Your task to perform on an android device: uninstall "Walmart Shopping & Grocery" Image 0: 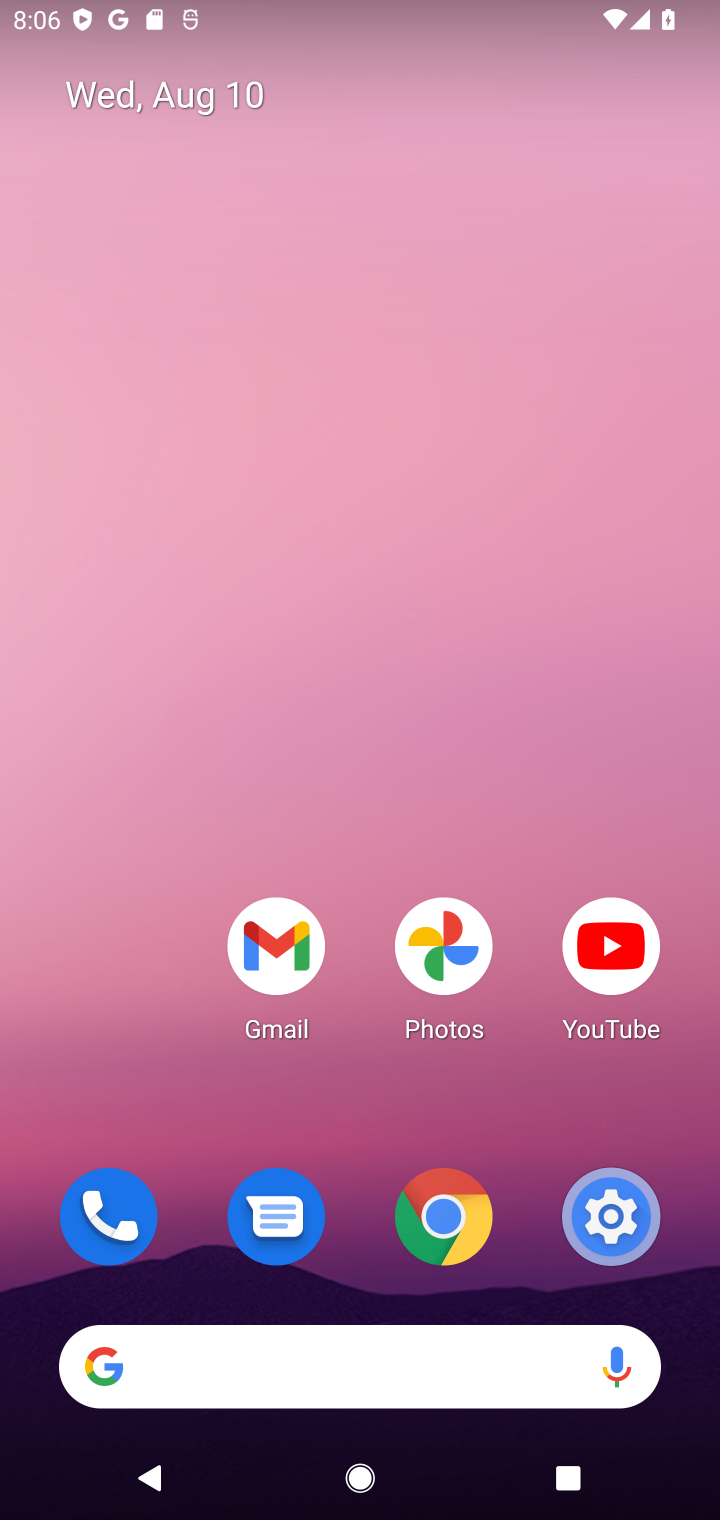
Step 0: drag from (351, 1355) to (593, 449)
Your task to perform on an android device: uninstall "Walmart Shopping & Grocery" Image 1: 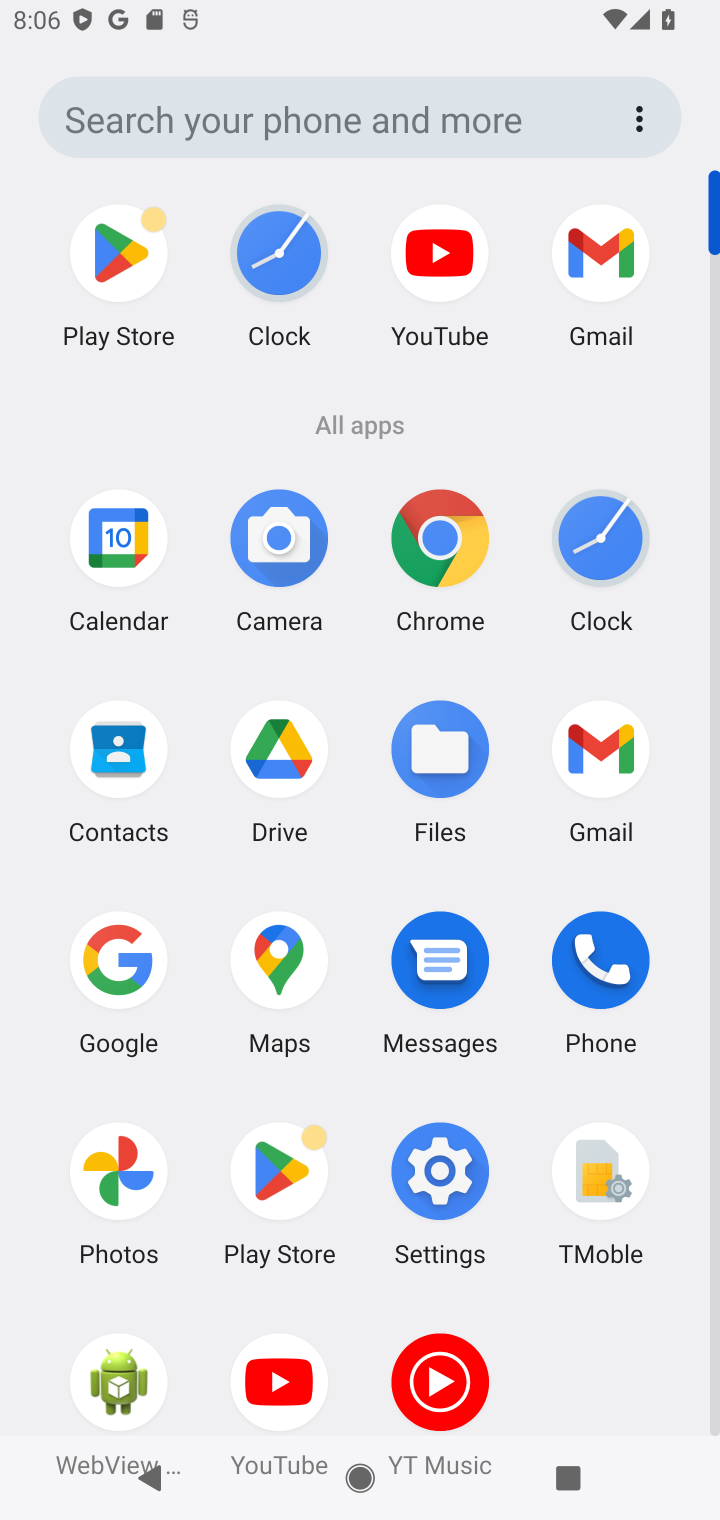
Step 1: drag from (282, 1172) to (374, 636)
Your task to perform on an android device: uninstall "Walmart Shopping & Grocery" Image 2: 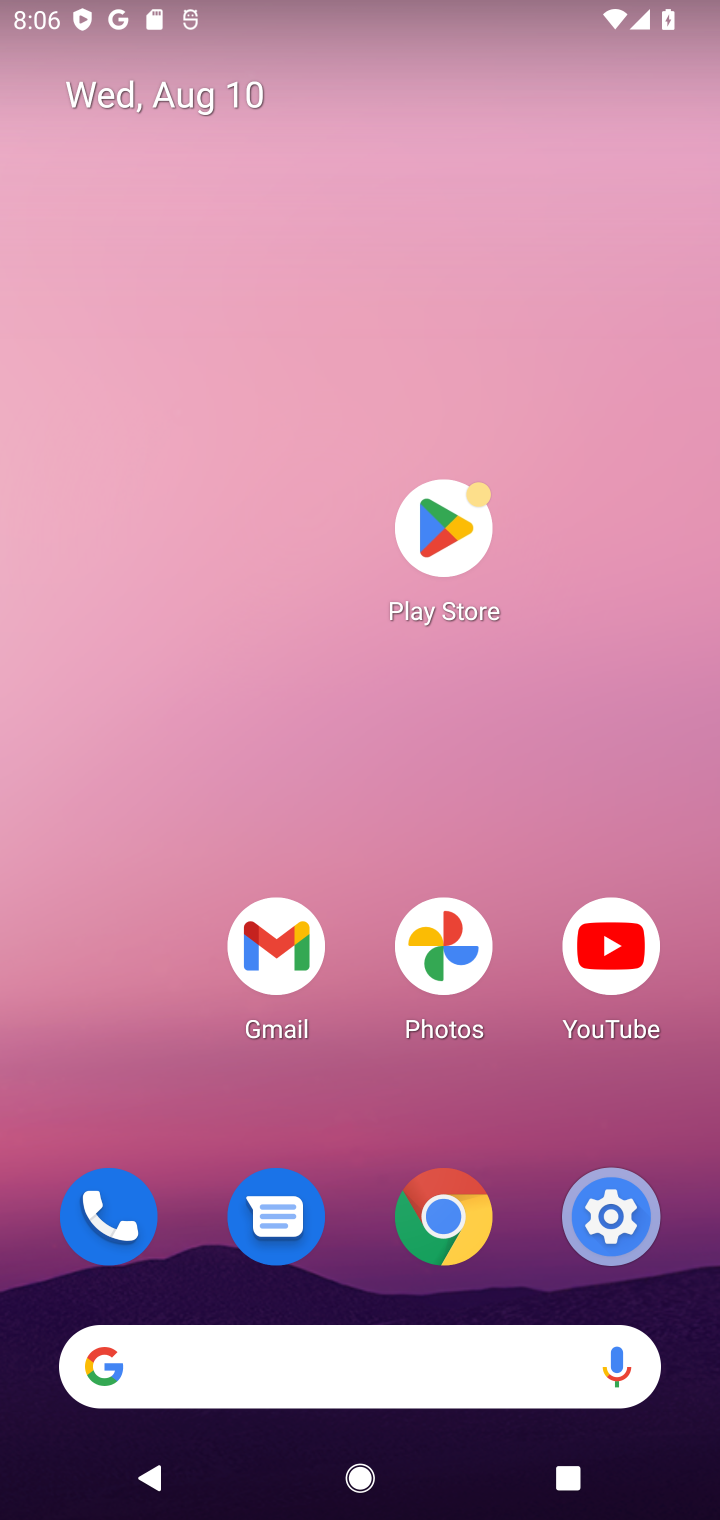
Step 2: click (429, 539)
Your task to perform on an android device: uninstall "Walmart Shopping & Grocery" Image 3: 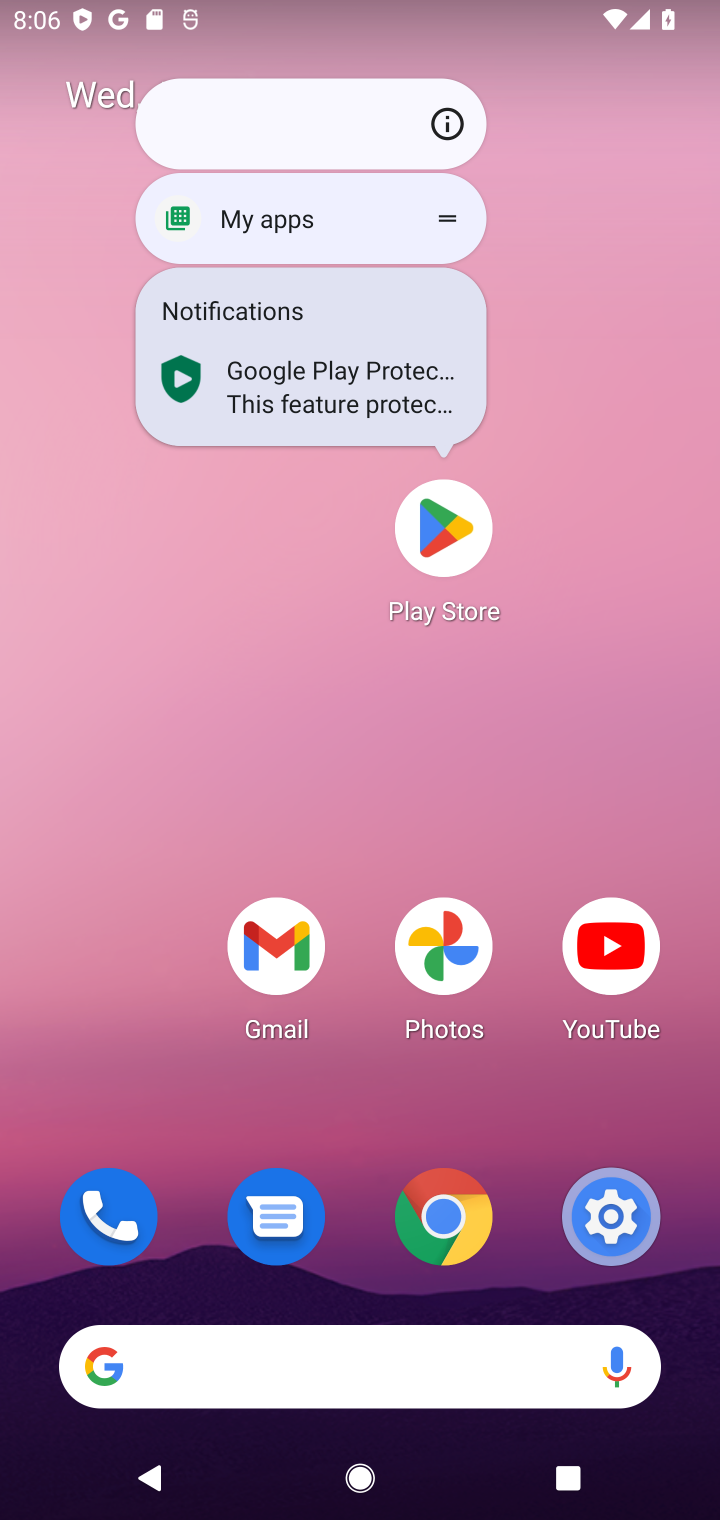
Step 3: click (429, 539)
Your task to perform on an android device: uninstall "Walmart Shopping & Grocery" Image 4: 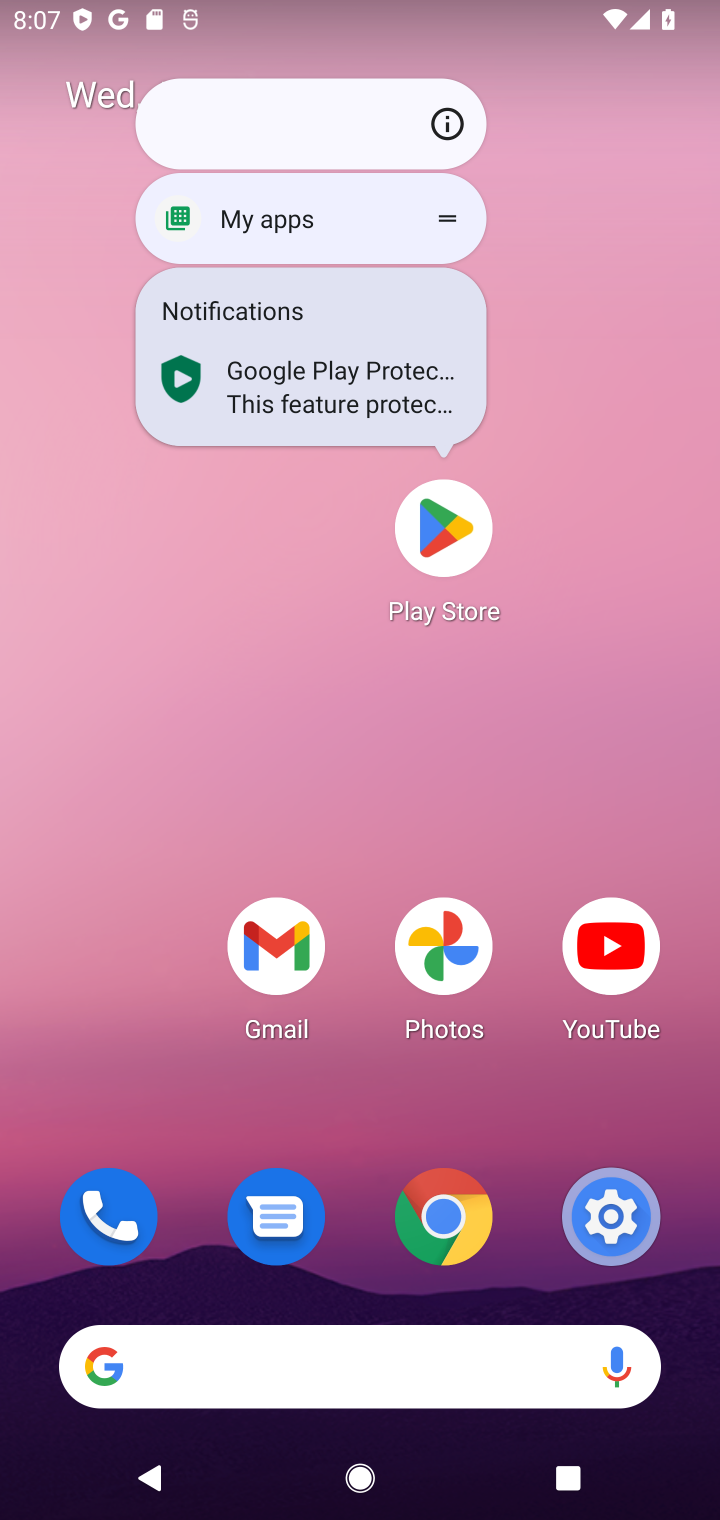
Step 4: click (429, 548)
Your task to perform on an android device: uninstall "Walmart Shopping & Grocery" Image 5: 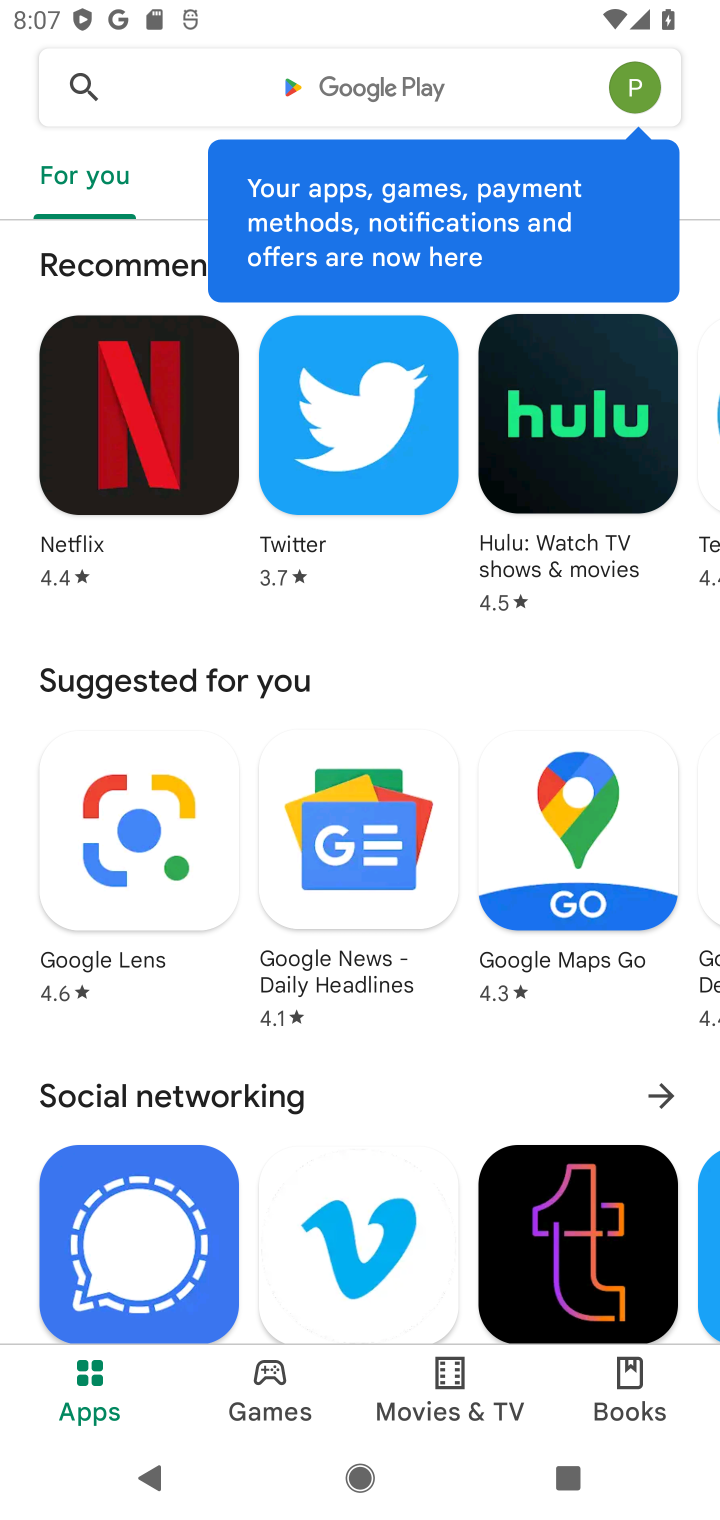
Step 5: click (438, 72)
Your task to perform on an android device: uninstall "Walmart Shopping & Grocery" Image 6: 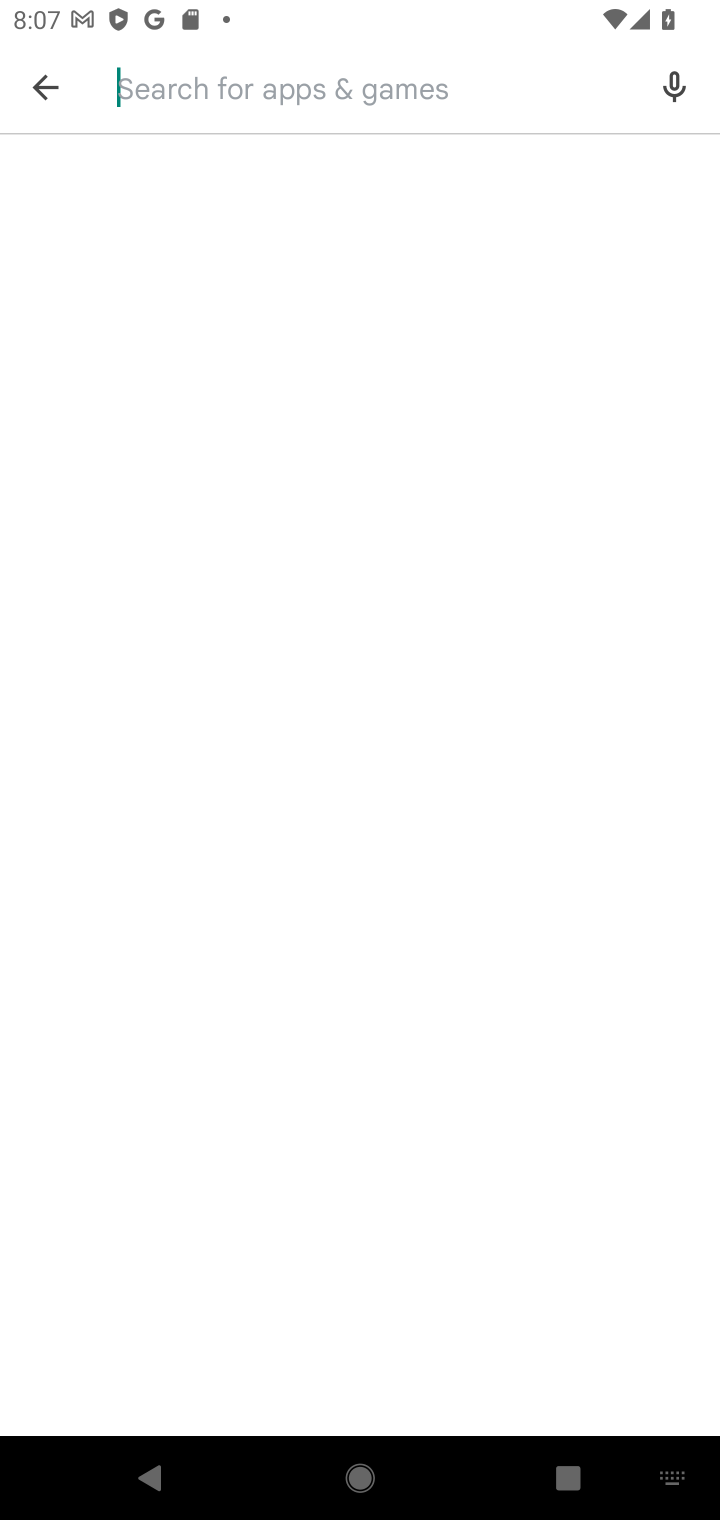
Step 6: type "Walmart Shopping & Grocery"
Your task to perform on an android device: uninstall "Walmart Shopping & Grocery" Image 7: 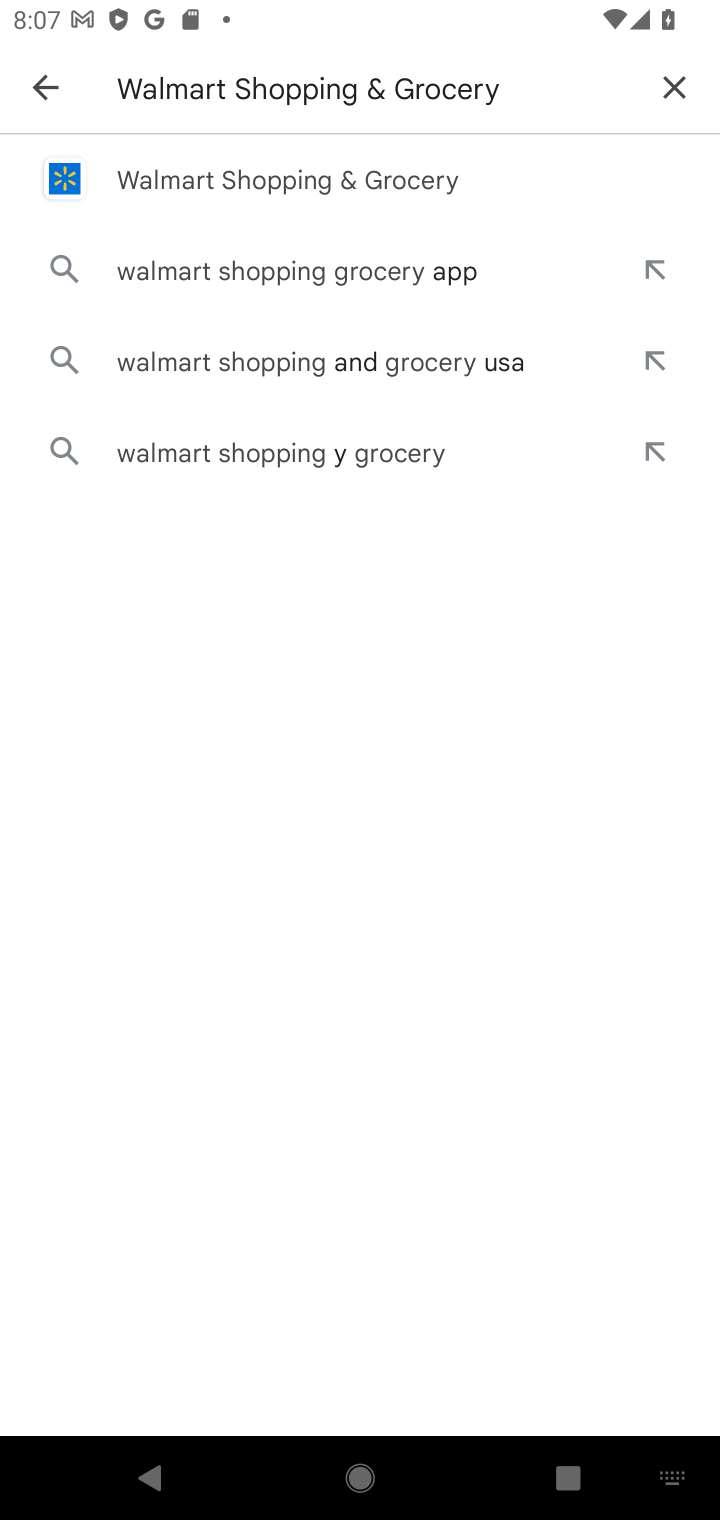
Step 7: click (399, 180)
Your task to perform on an android device: uninstall "Walmart Shopping & Grocery" Image 8: 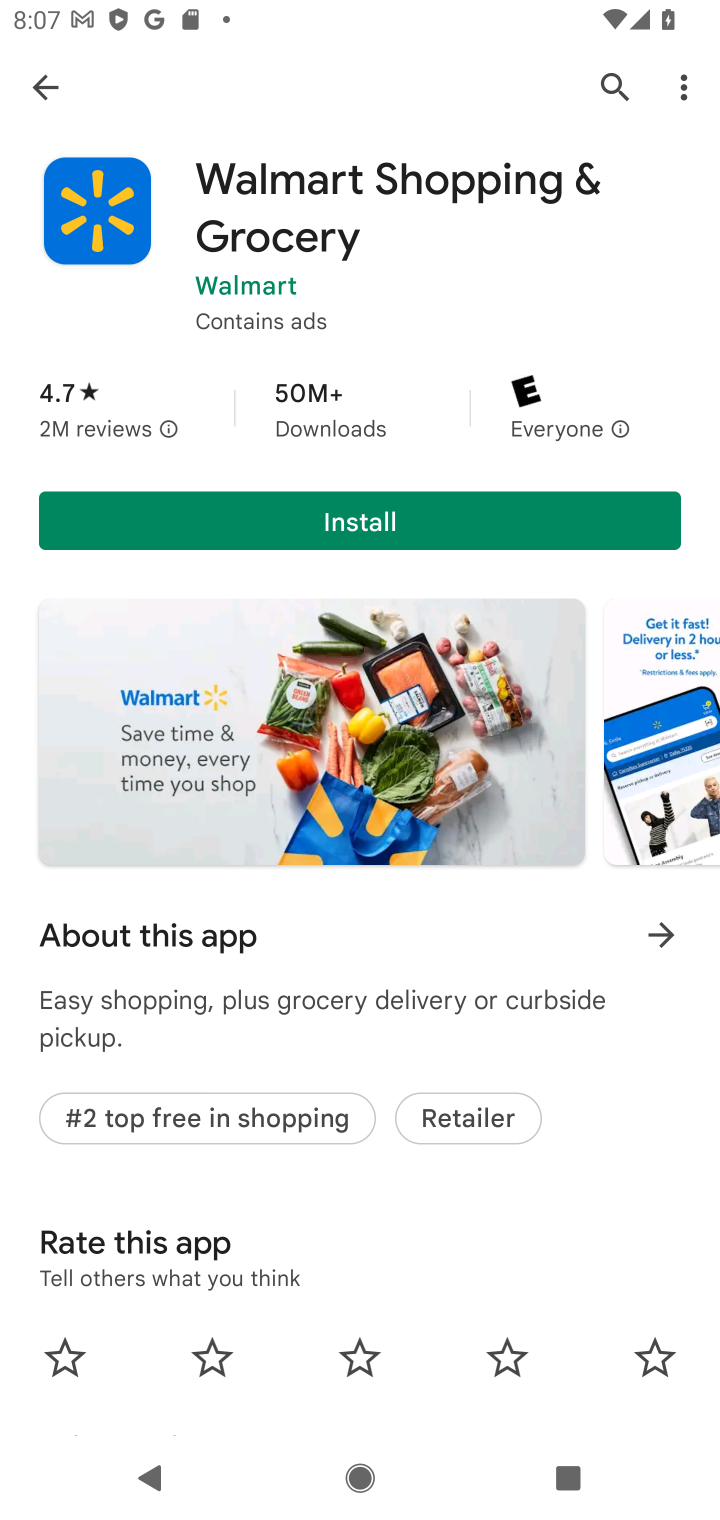
Step 8: task complete